Your task to perform on an android device: toggle improve location accuracy Image 0: 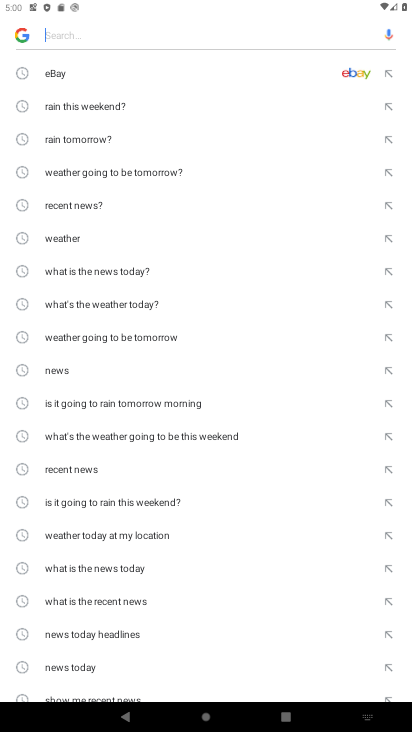
Step 0: press home button
Your task to perform on an android device: toggle improve location accuracy Image 1: 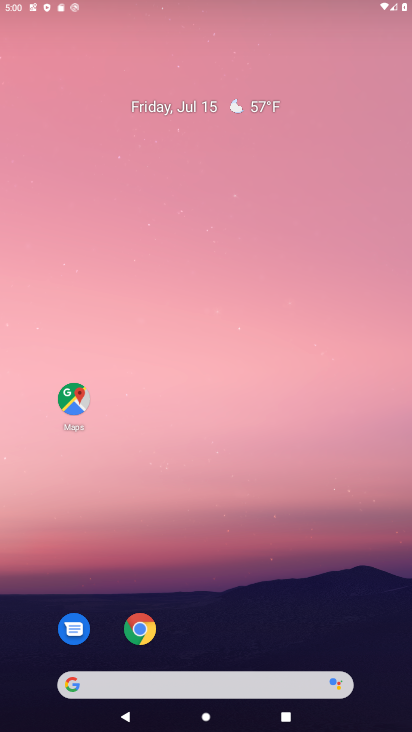
Step 1: drag from (265, 590) to (275, 75)
Your task to perform on an android device: toggle improve location accuracy Image 2: 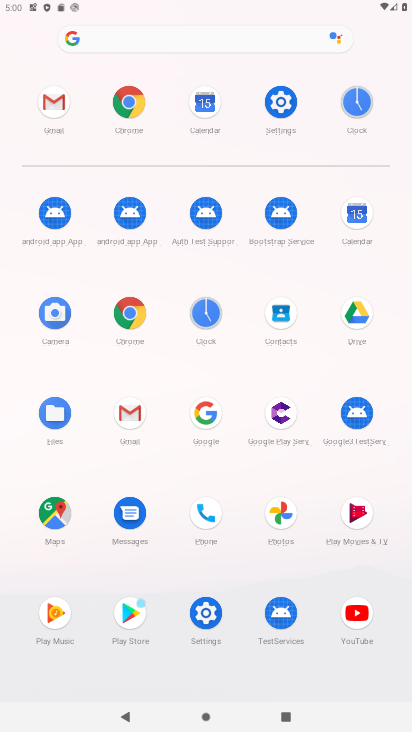
Step 2: click (280, 110)
Your task to perform on an android device: toggle improve location accuracy Image 3: 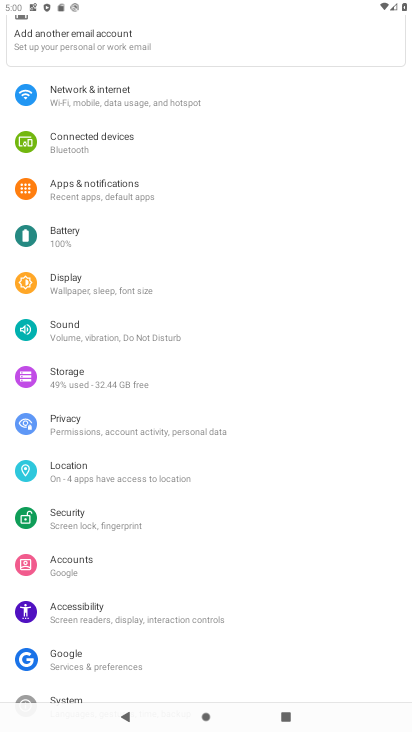
Step 3: click (79, 472)
Your task to perform on an android device: toggle improve location accuracy Image 4: 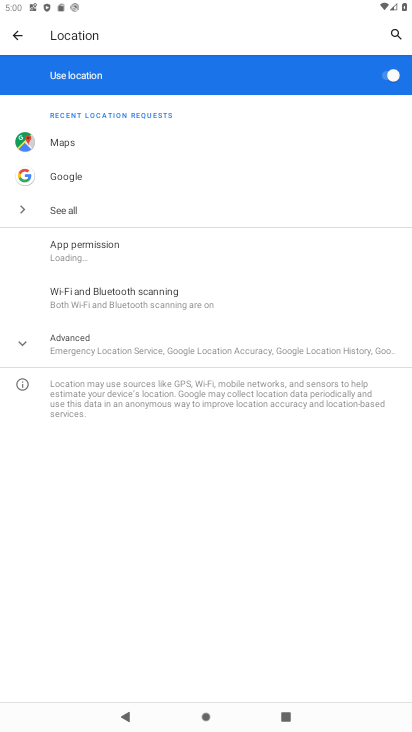
Step 4: click (25, 344)
Your task to perform on an android device: toggle improve location accuracy Image 5: 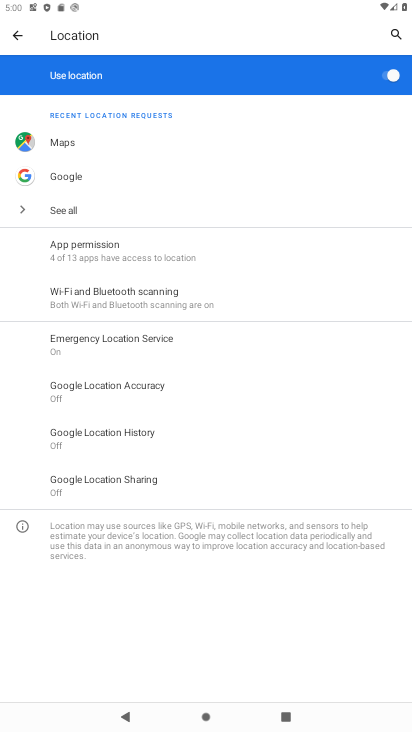
Step 5: click (125, 392)
Your task to perform on an android device: toggle improve location accuracy Image 6: 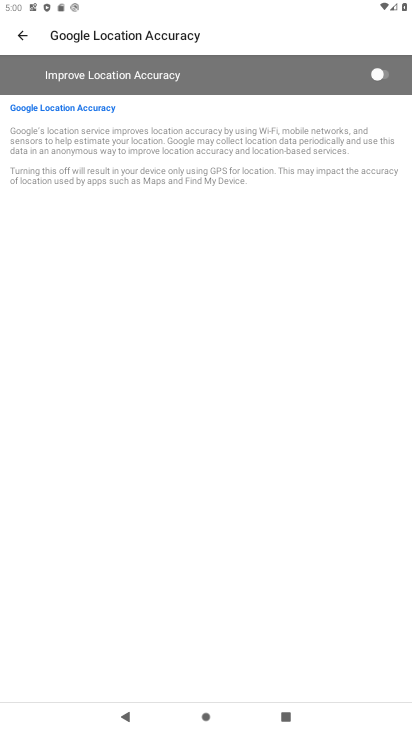
Step 6: click (386, 80)
Your task to perform on an android device: toggle improve location accuracy Image 7: 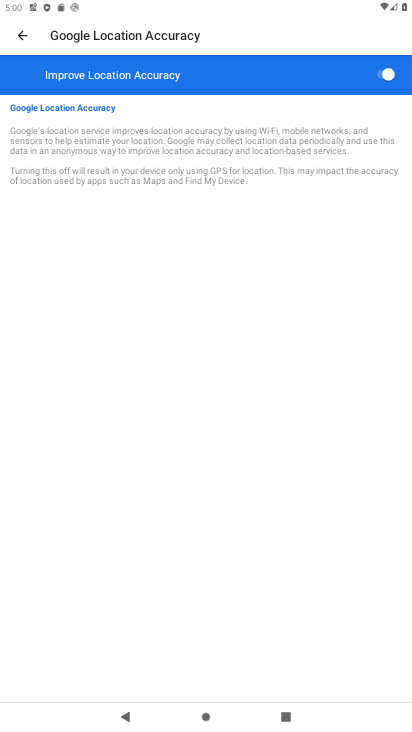
Step 7: task complete